Your task to perform on an android device: turn on showing notifications on the lock screen Image 0: 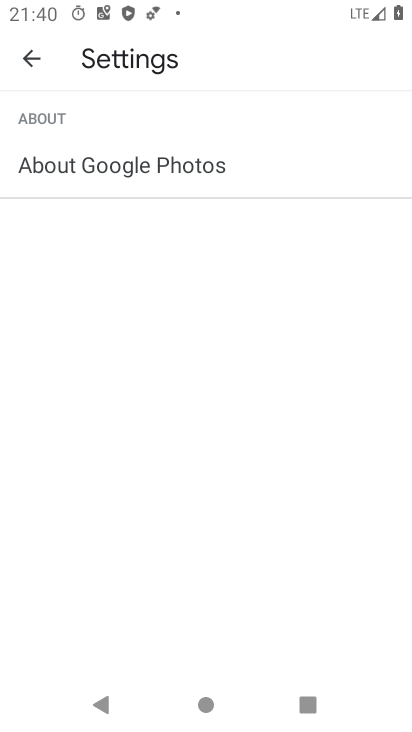
Step 0: press home button
Your task to perform on an android device: turn on showing notifications on the lock screen Image 1: 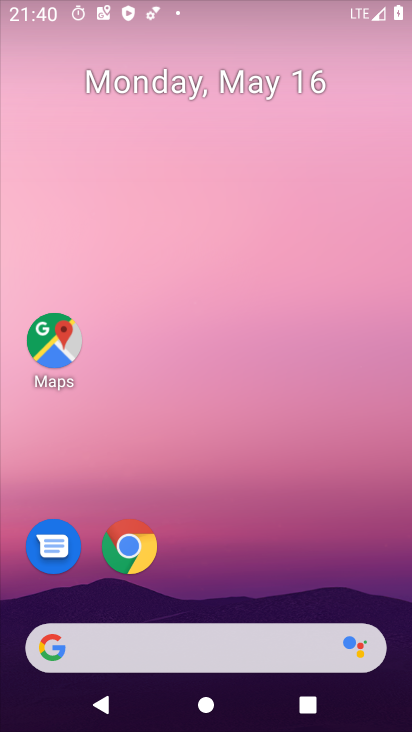
Step 1: drag from (229, 661) to (217, 296)
Your task to perform on an android device: turn on showing notifications on the lock screen Image 2: 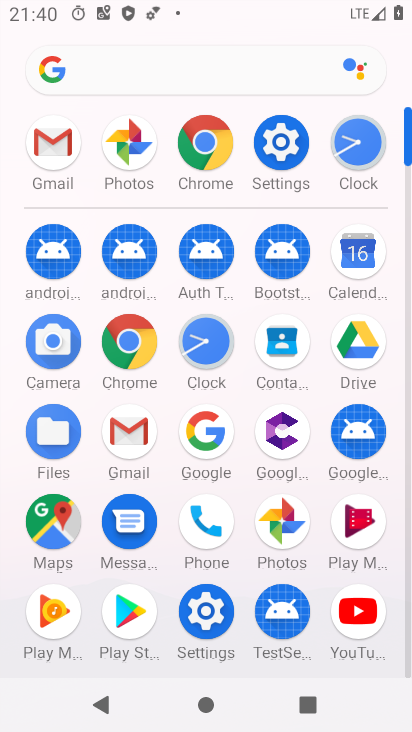
Step 2: click (281, 130)
Your task to perform on an android device: turn on showing notifications on the lock screen Image 3: 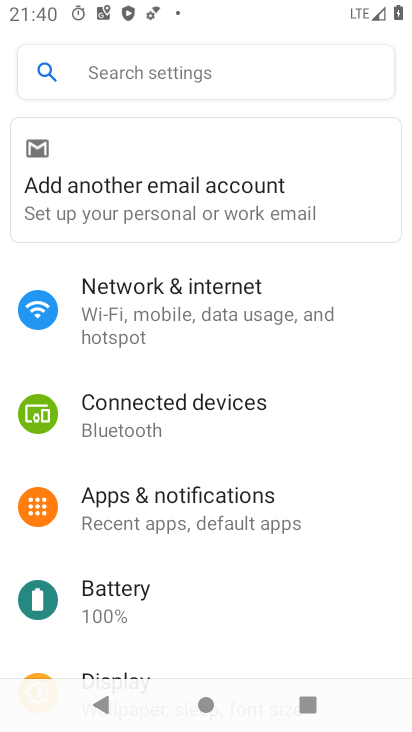
Step 3: click (203, 78)
Your task to perform on an android device: turn on showing notifications on the lock screen Image 4: 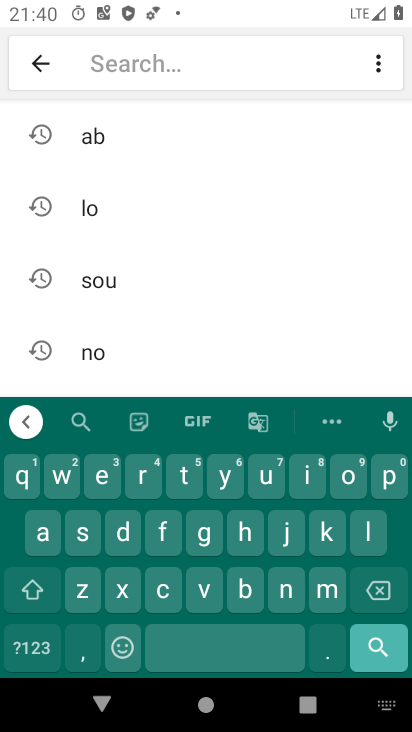
Step 4: click (102, 352)
Your task to perform on an android device: turn on showing notifications on the lock screen Image 5: 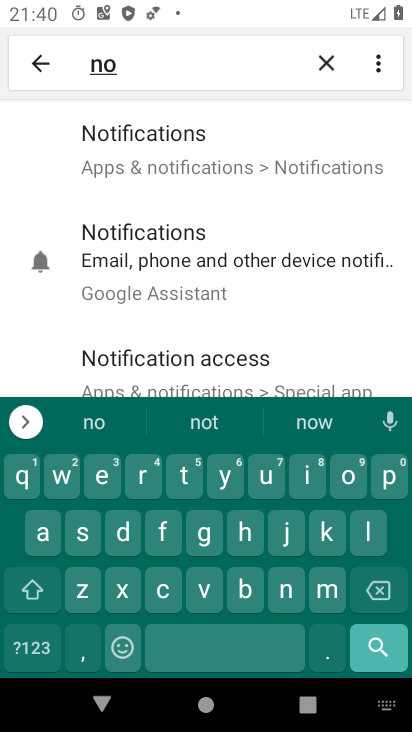
Step 5: click (158, 139)
Your task to perform on an android device: turn on showing notifications on the lock screen Image 6: 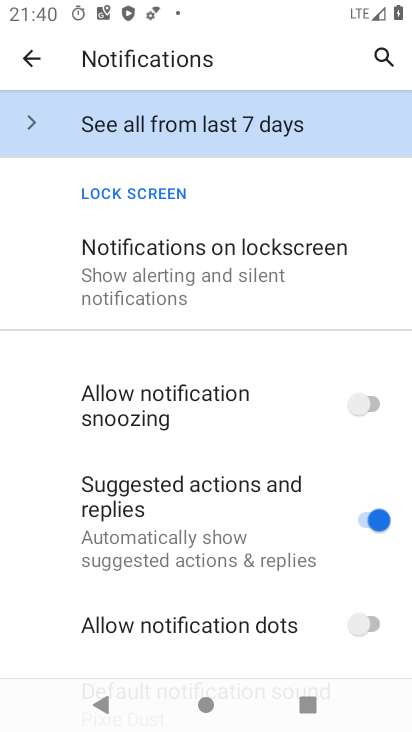
Step 6: click (194, 254)
Your task to perform on an android device: turn on showing notifications on the lock screen Image 7: 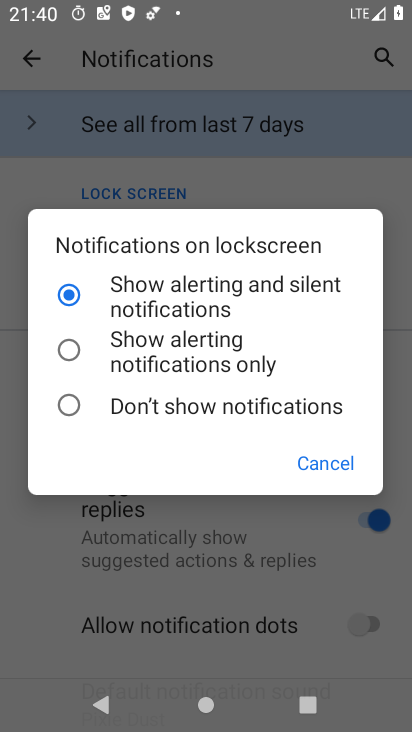
Step 7: task complete